Your task to perform on an android device: open app "Google Home" (install if not already installed) Image 0: 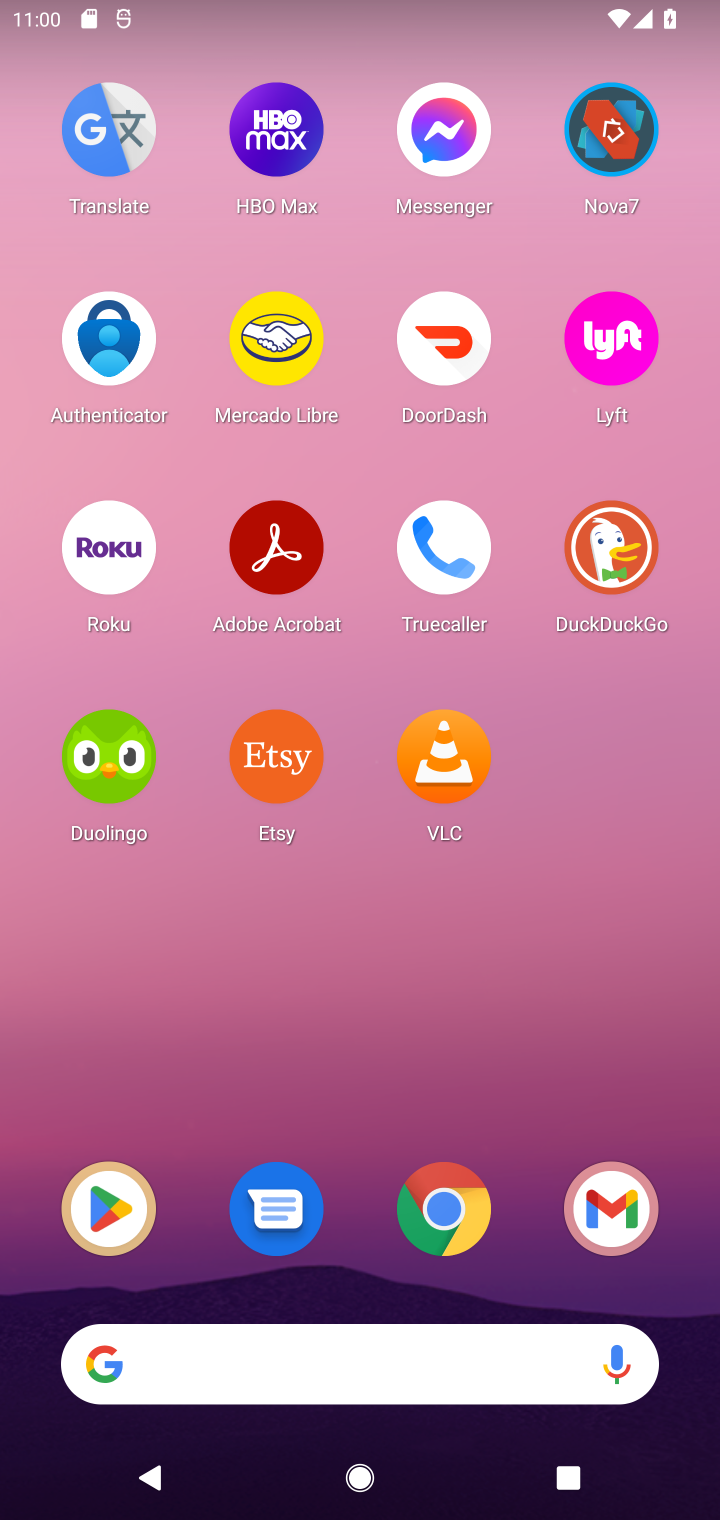
Step 0: drag from (564, 1066) to (450, 43)
Your task to perform on an android device: open app "Google Home" (install if not already installed) Image 1: 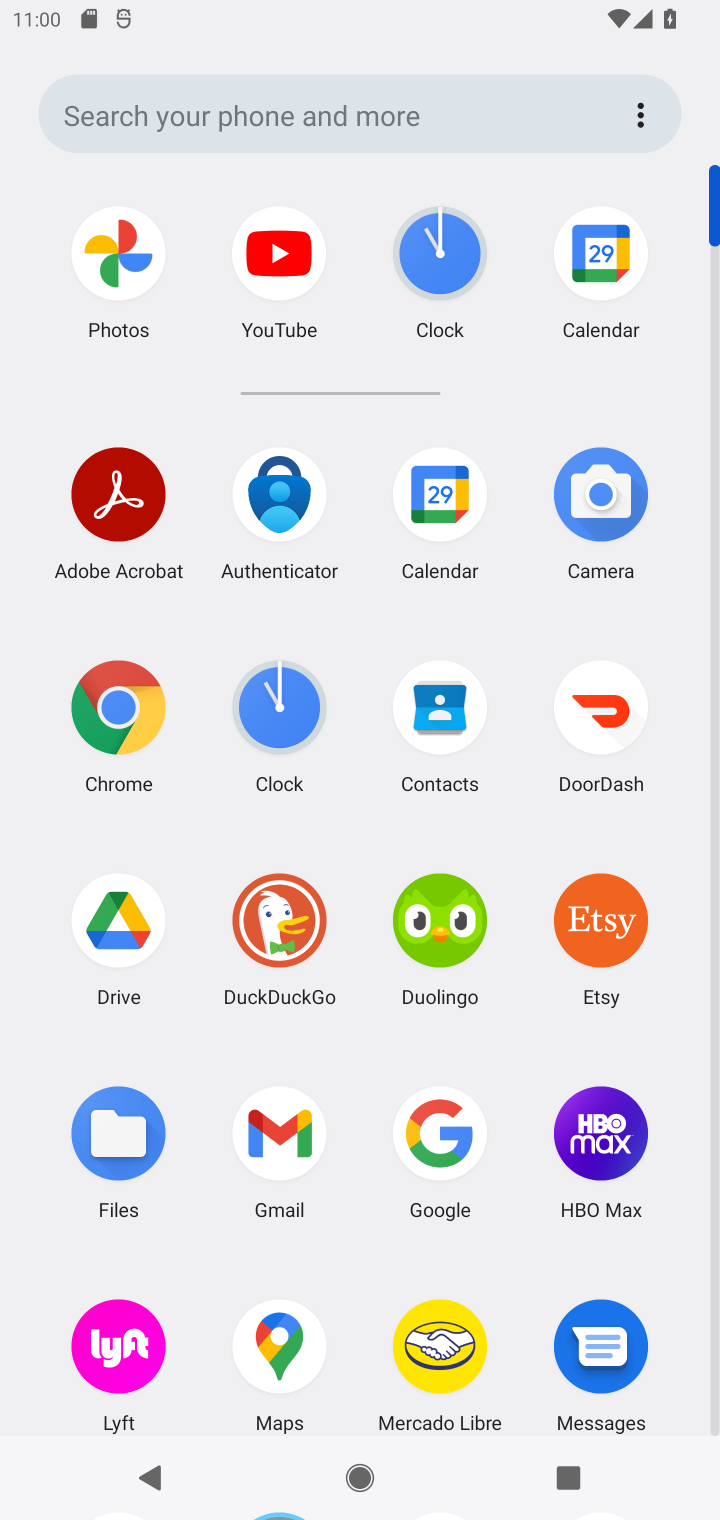
Step 1: drag from (334, 1202) to (367, 393)
Your task to perform on an android device: open app "Google Home" (install if not already installed) Image 2: 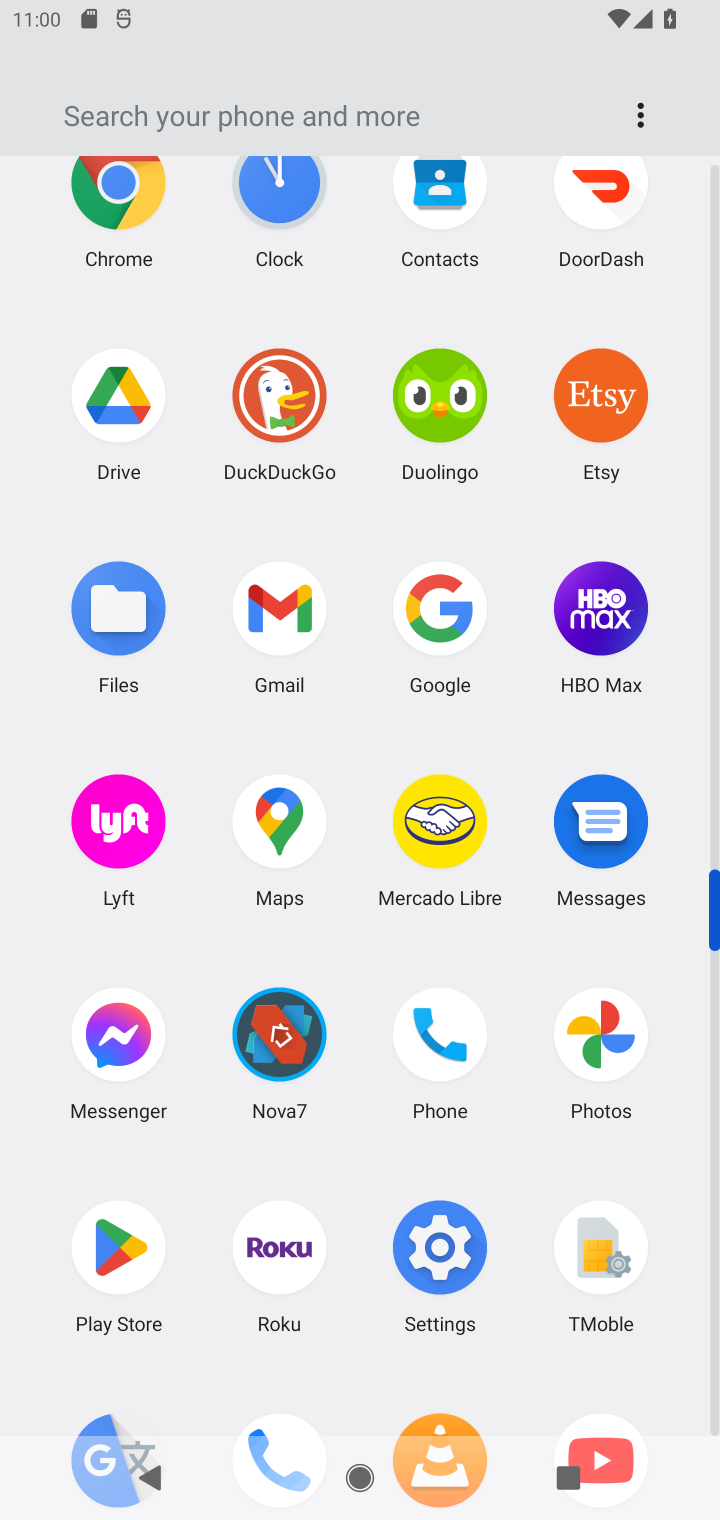
Step 2: click (123, 1234)
Your task to perform on an android device: open app "Google Home" (install if not already installed) Image 3: 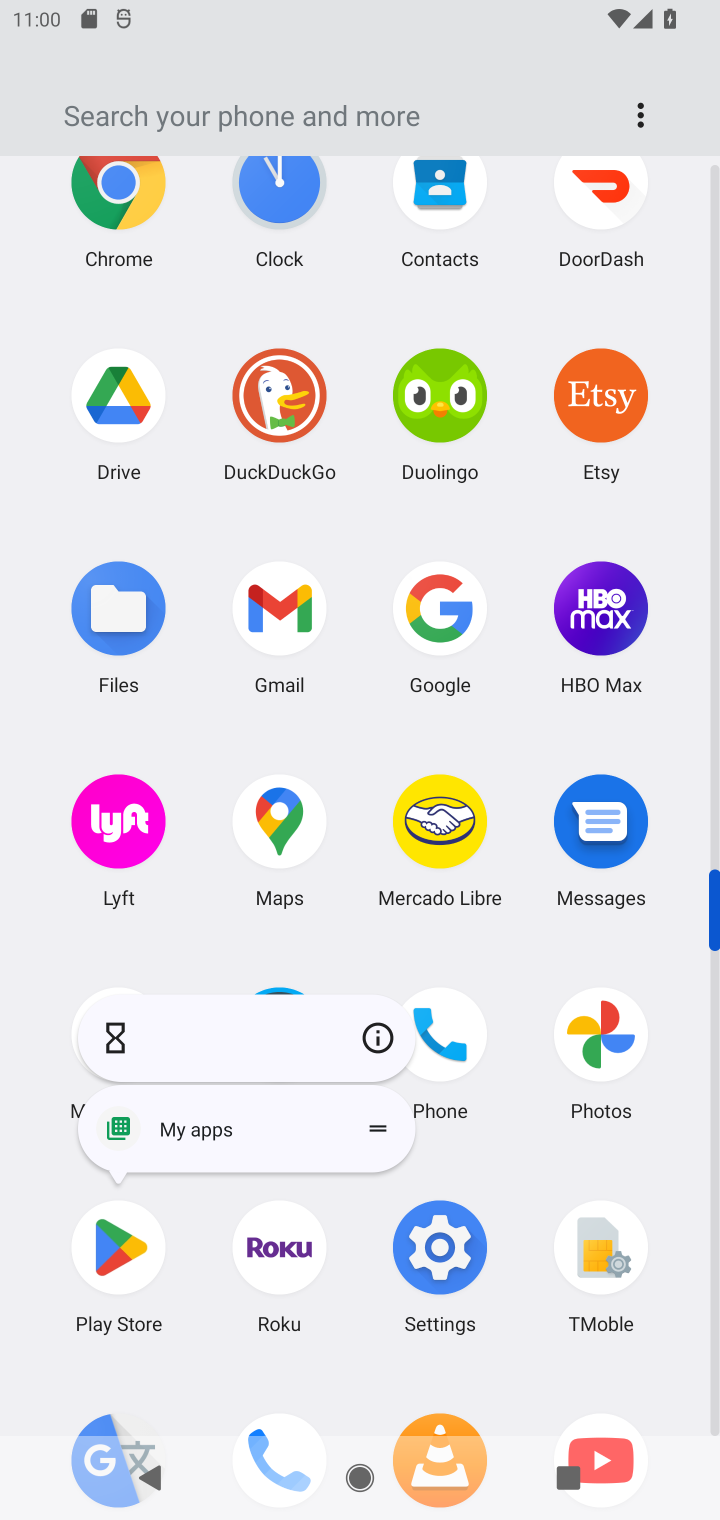
Step 3: click (114, 1238)
Your task to perform on an android device: open app "Google Home" (install if not already installed) Image 4: 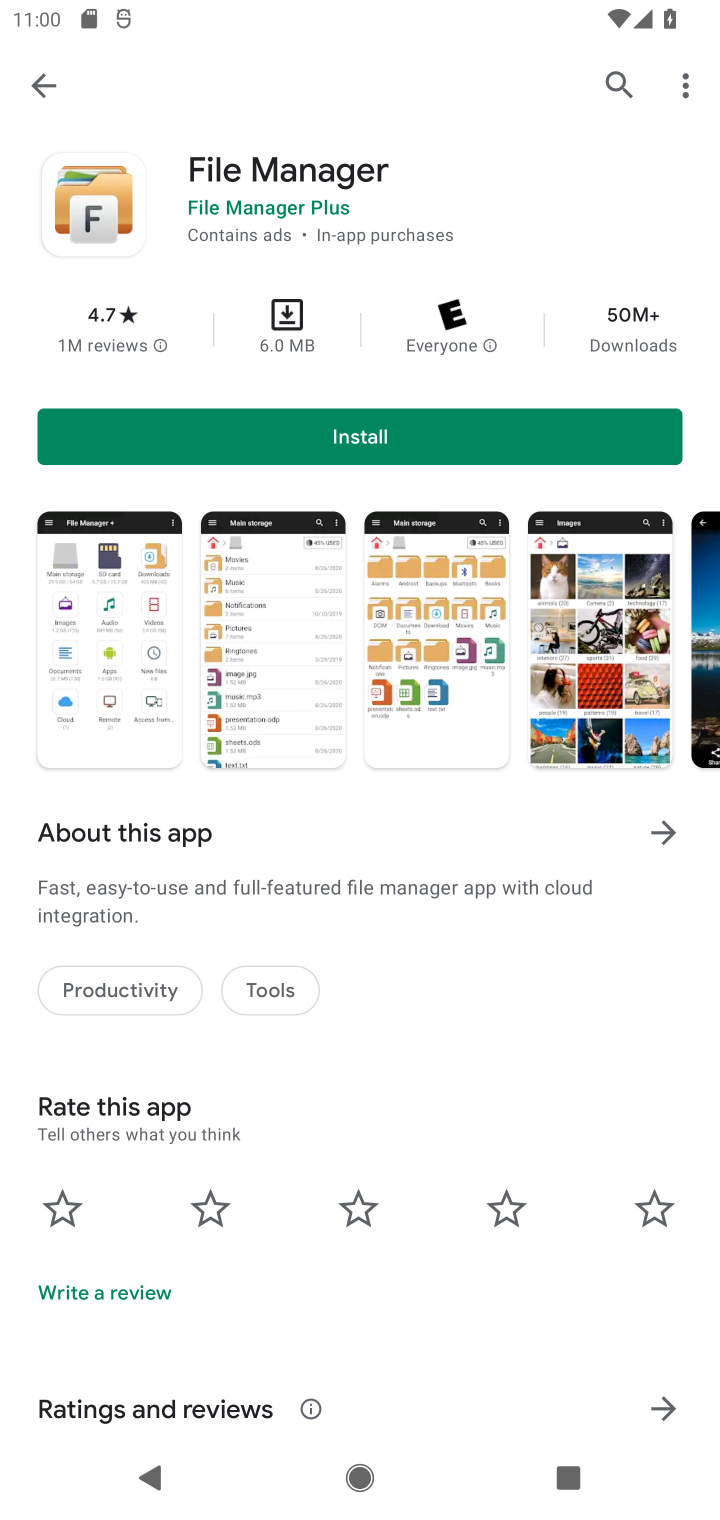
Step 4: click (618, 66)
Your task to perform on an android device: open app "Google Home" (install if not already installed) Image 5: 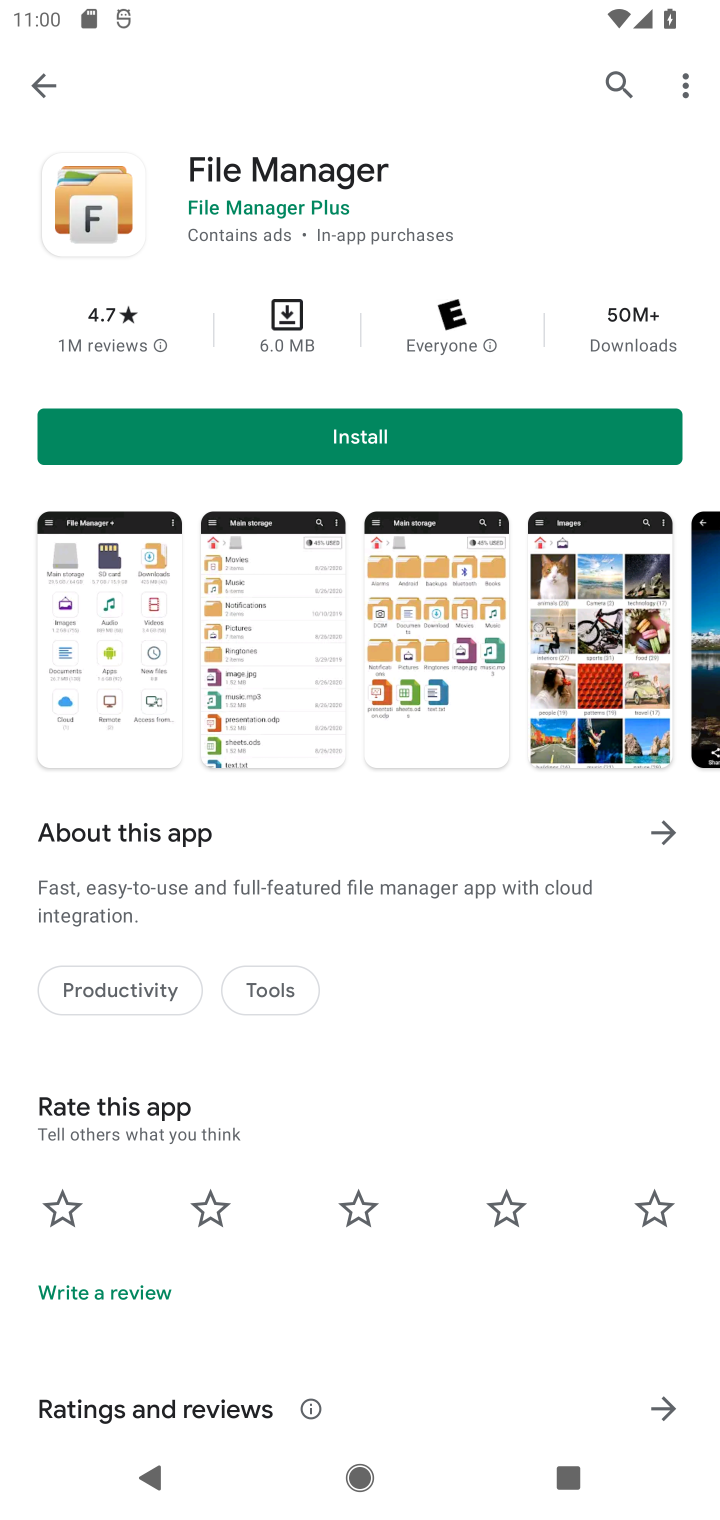
Step 5: click (299, 111)
Your task to perform on an android device: open app "Google Home" (install if not already installed) Image 6: 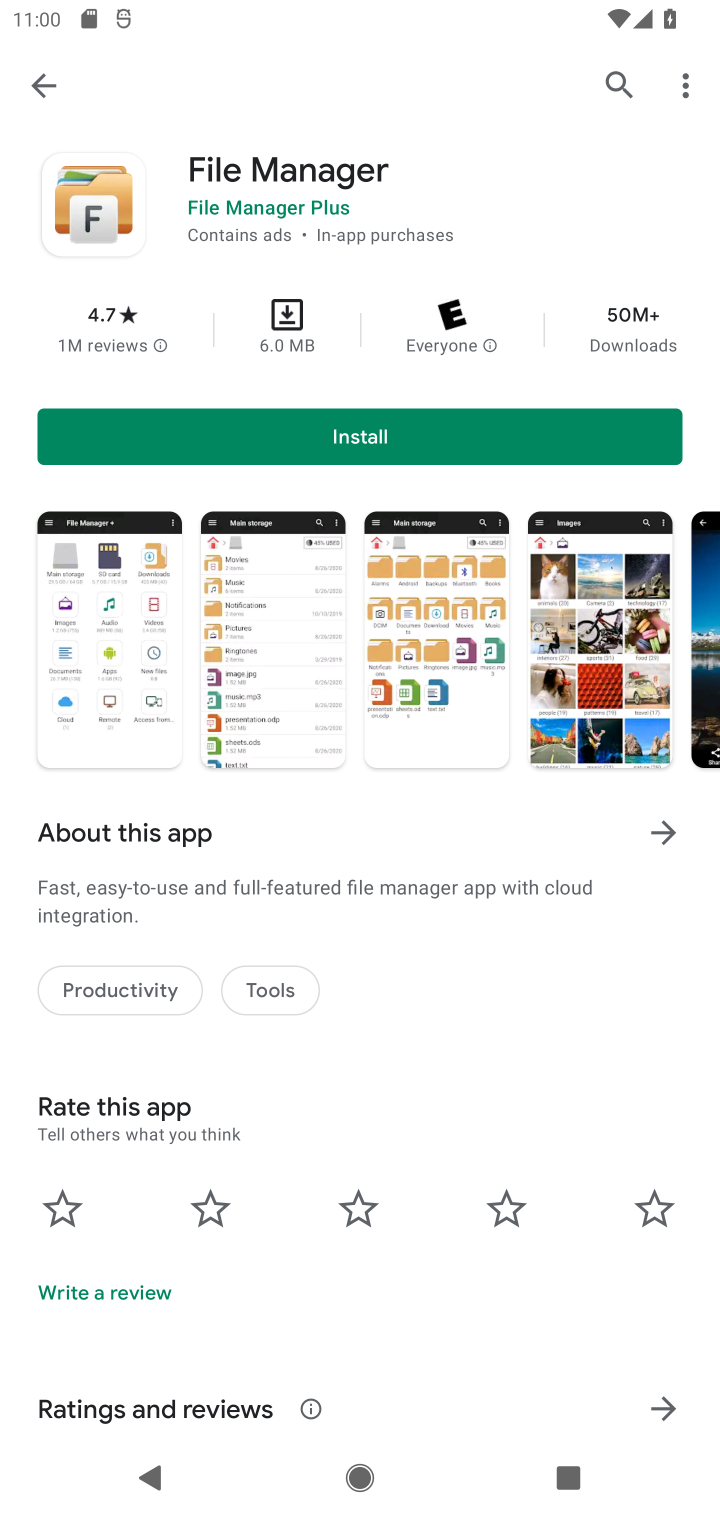
Step 6: press back button
Your task to perform on an android device: open app "Google Home" (install if not already installed) Image 7: 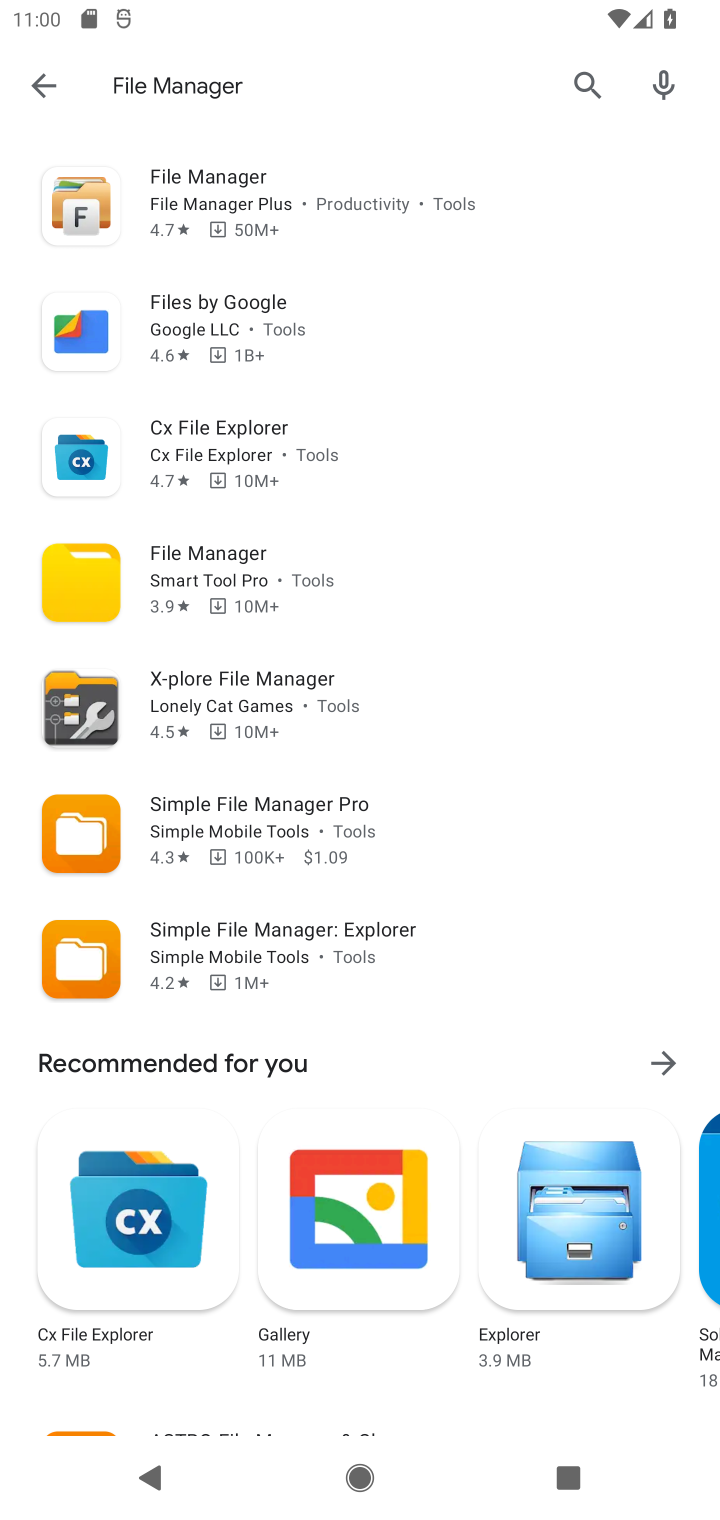
Step 7: click (362, 104)
Your task to perform on an android device: open app "Google Home" (install if not already installed) Image 8: 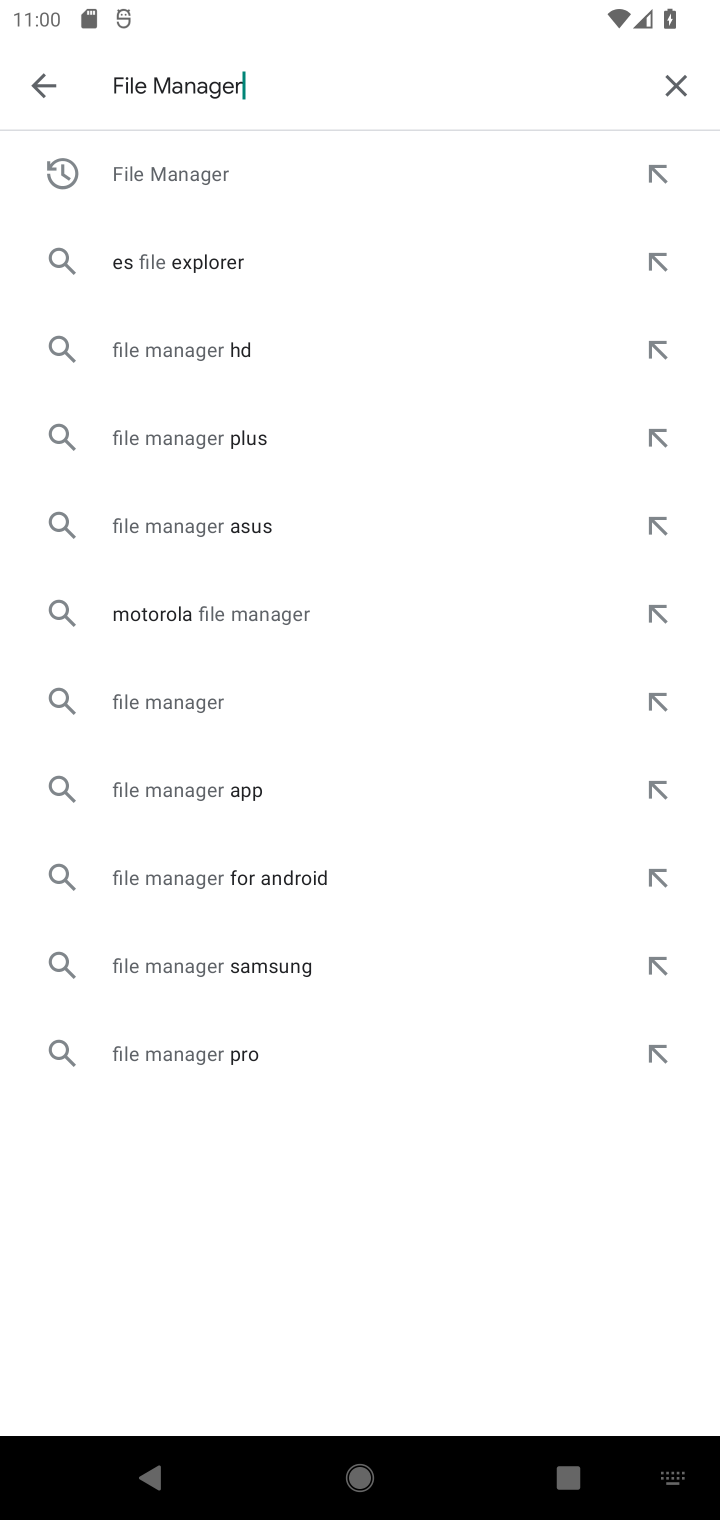
Step 8: click (673, 89)
Your task to perform on an android device: open app "Google Home" (install if not already installed) Image 9: 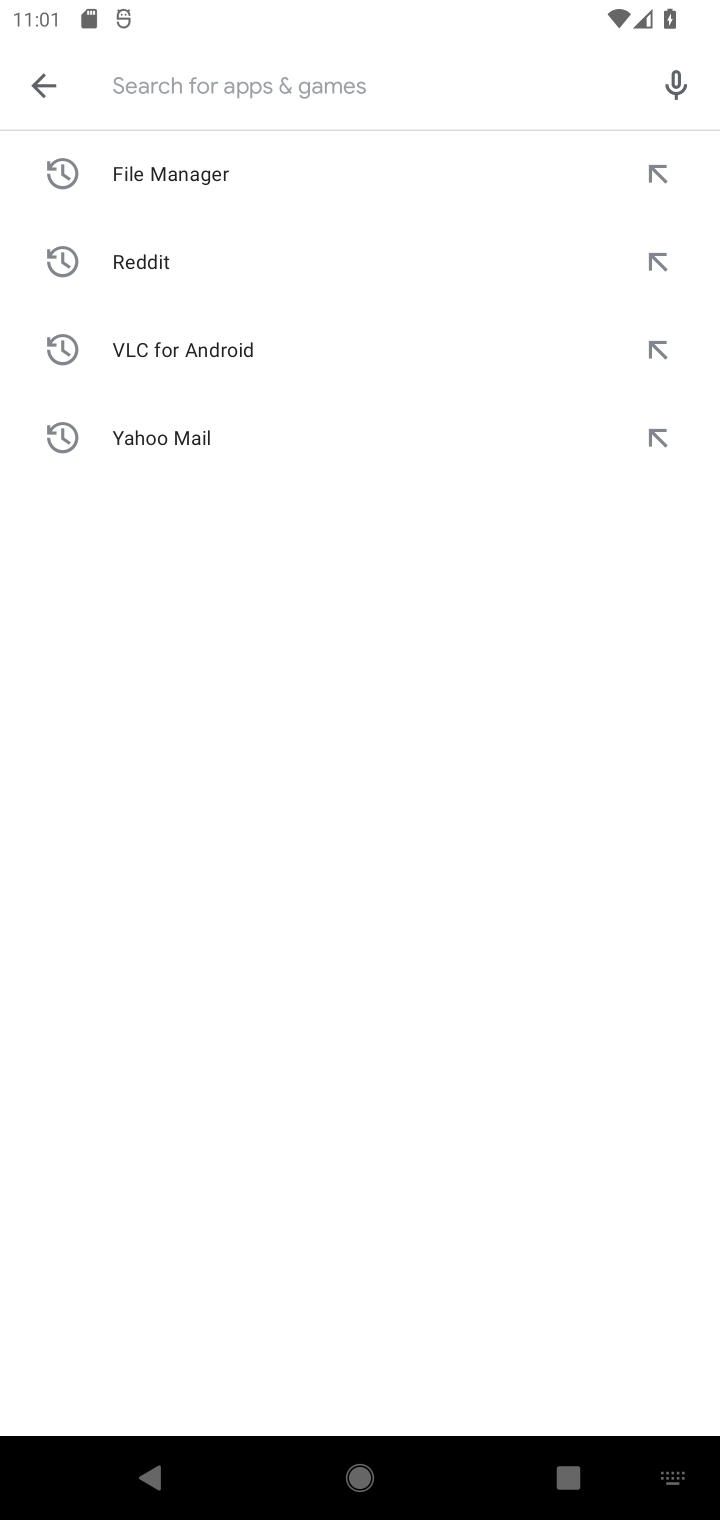
Step 9: type "Google Home"
Your task to perform on an android device: open app "Google Home" (install if not already installed) Image 10: 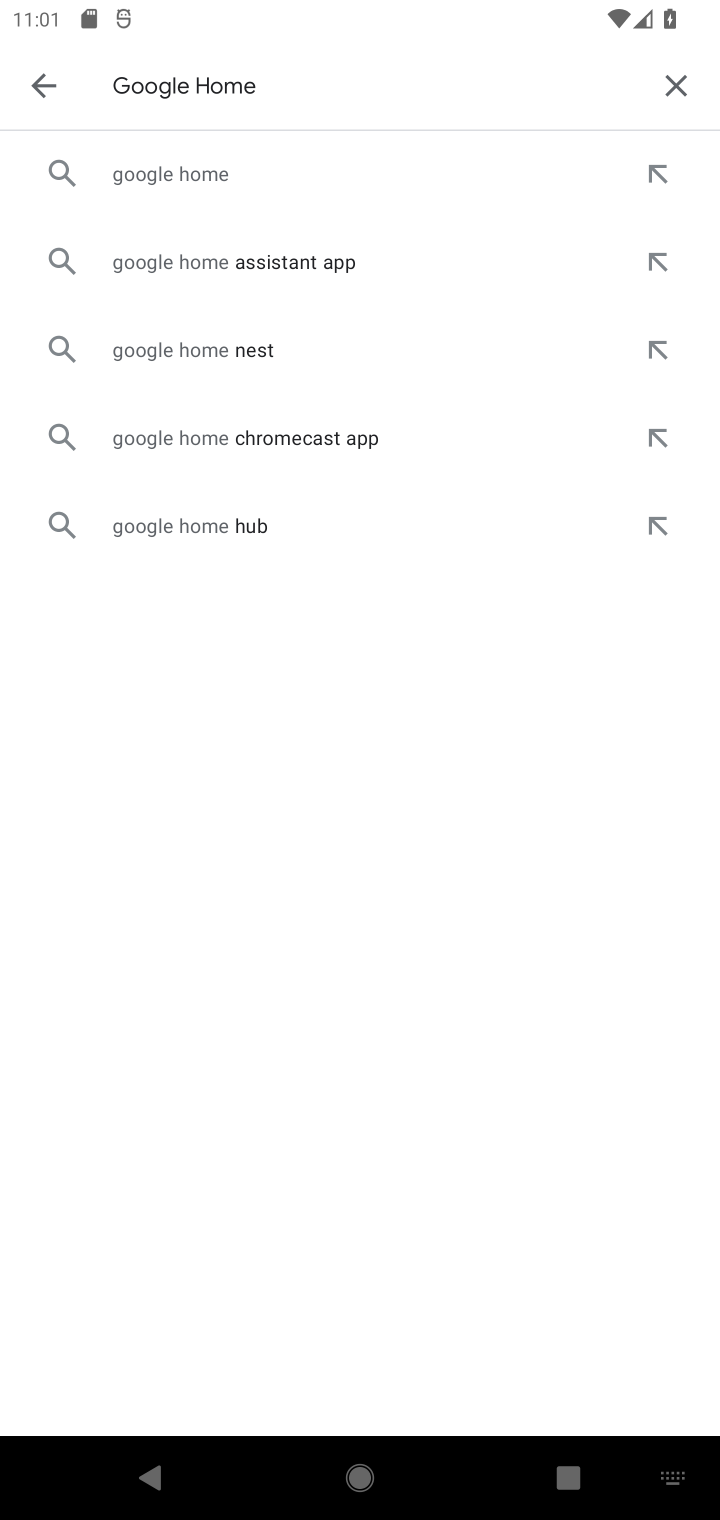
Step 10: press enter
Your task to perform on an android device: open app "Google Home" (install if not already installed) Image 11: 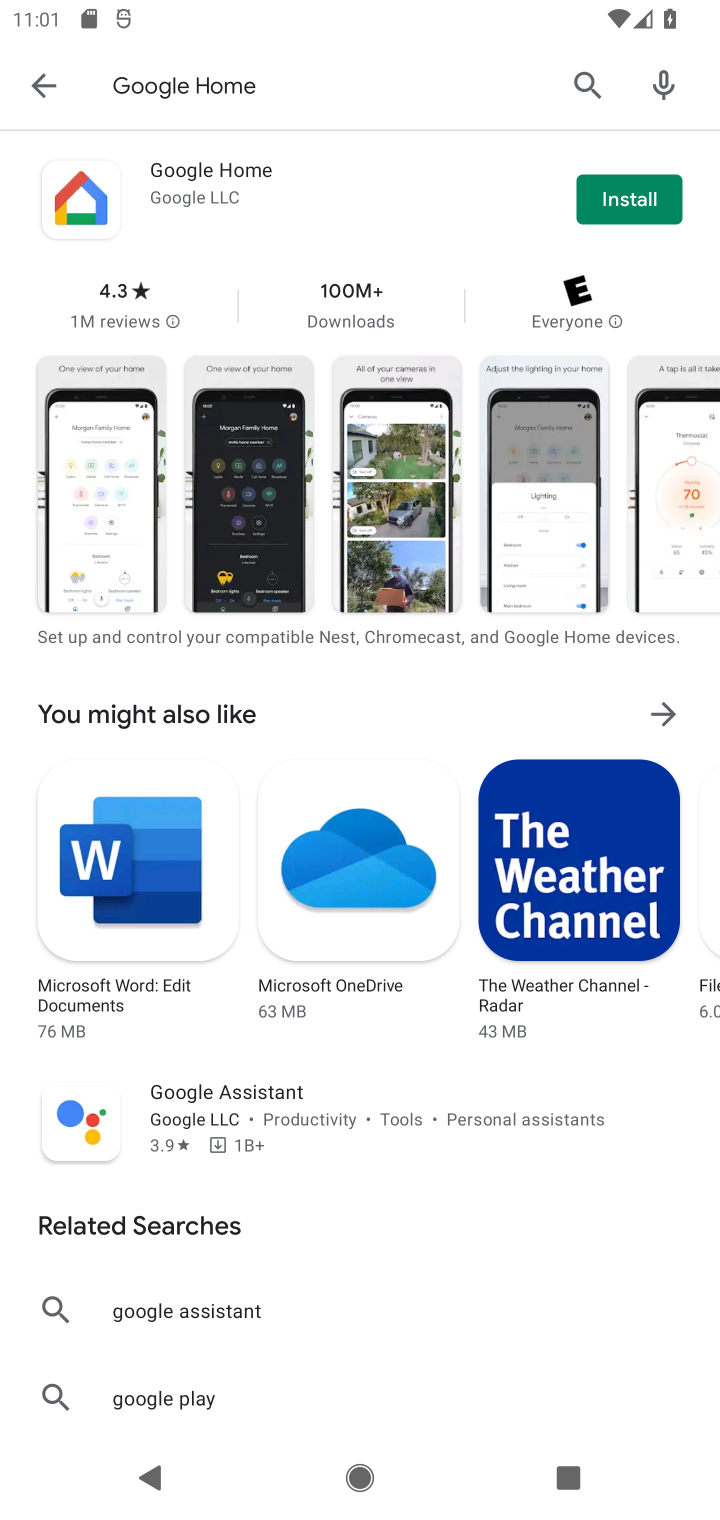
Step 11: click (627, 198)
Your task to perform on an android device: open app "Google Home" (install if not already installed) Image 12: 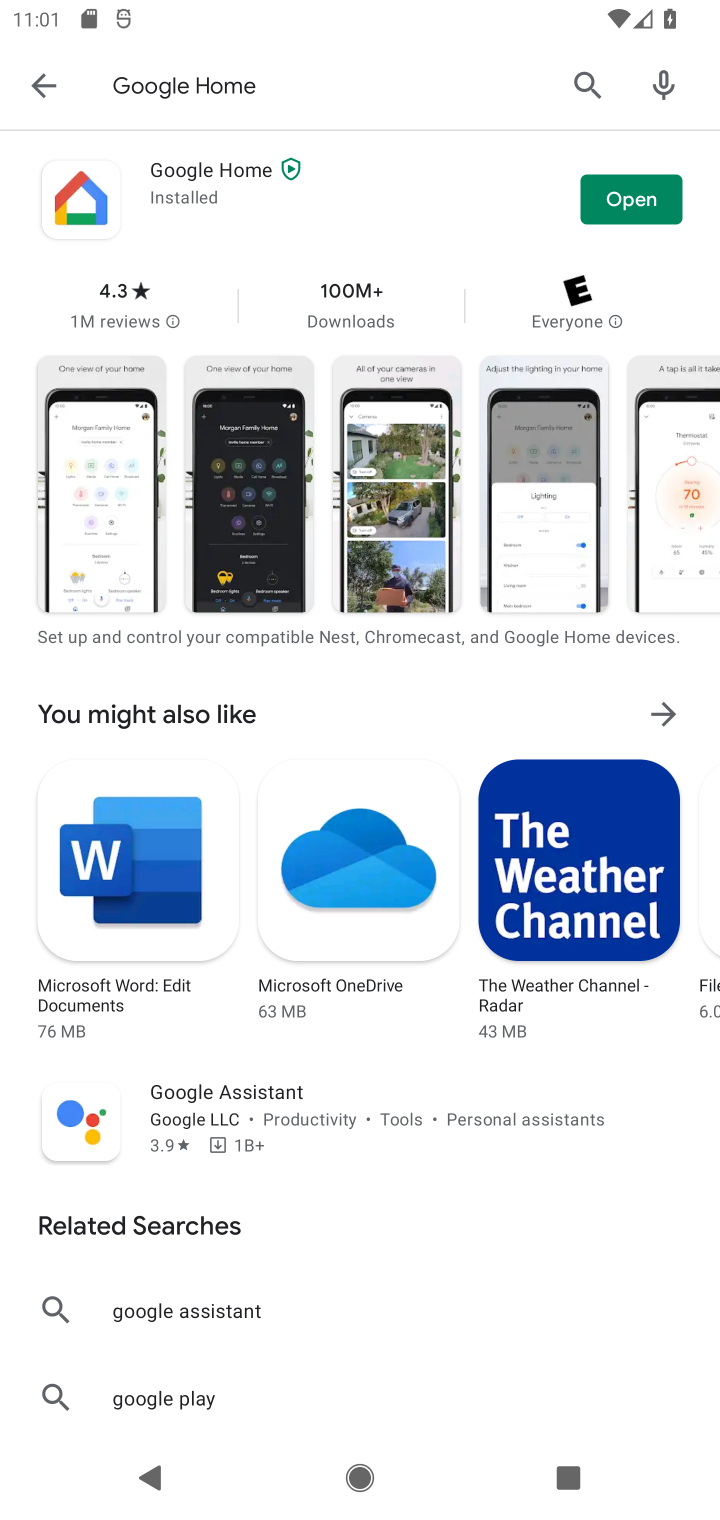
Step 12: click (652, 201)
Your task to perform on an android device: open app "Google Home" (install if not already installed) Image 13: 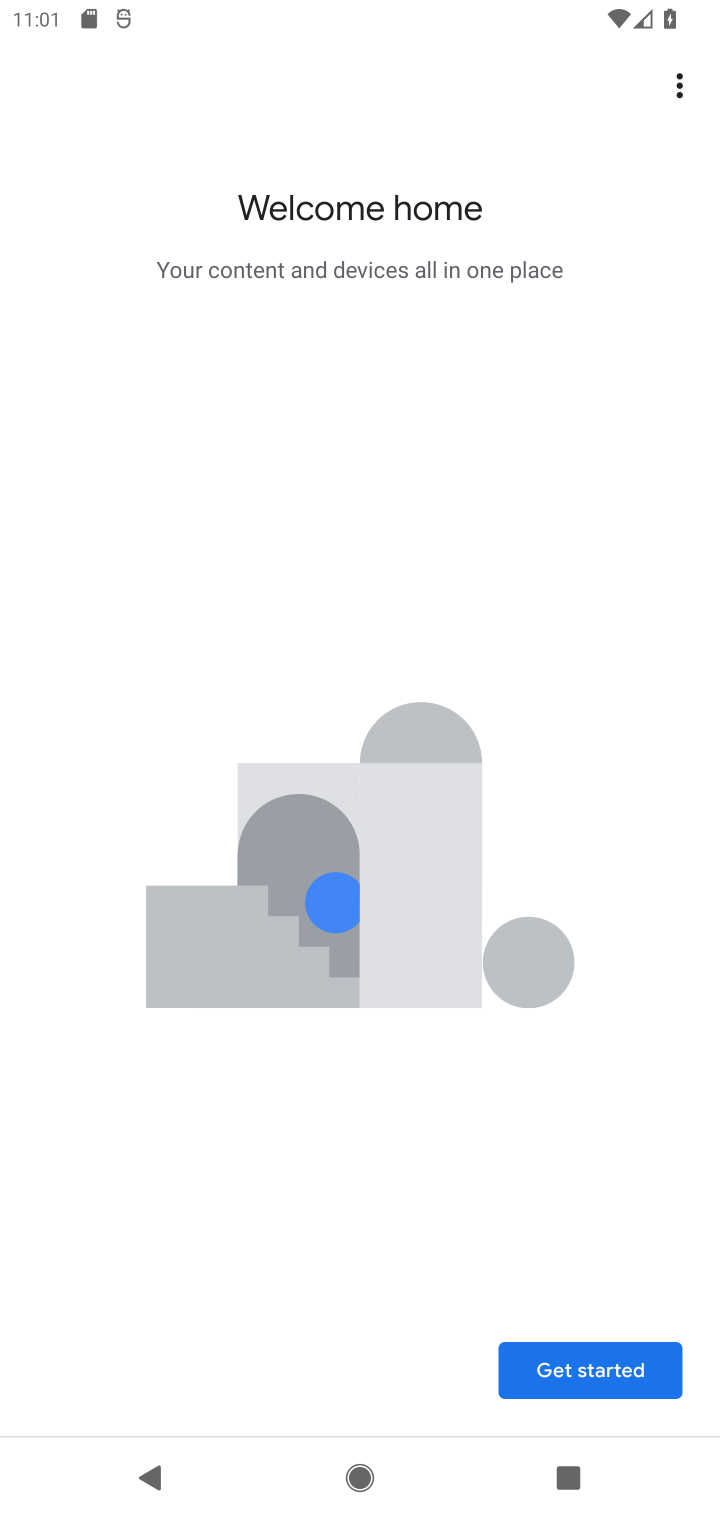
Step 13: task complete